Your task to perform on an android device: What's the weather going to be this weekend? Image 0: 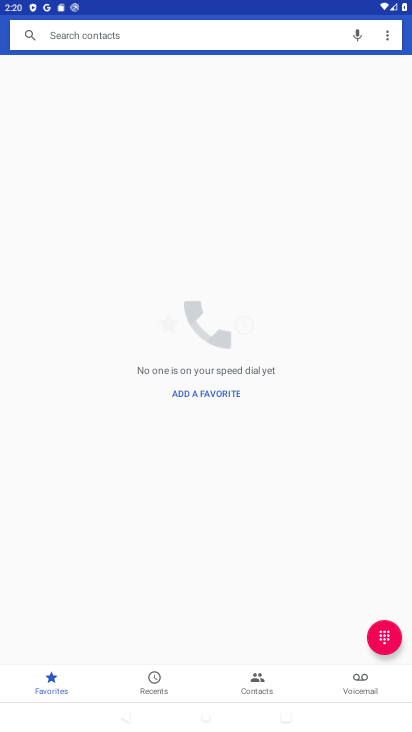
Step 0: press home button
Your task to perform on an android device: What's the weather going to be this weekend? Image 1: 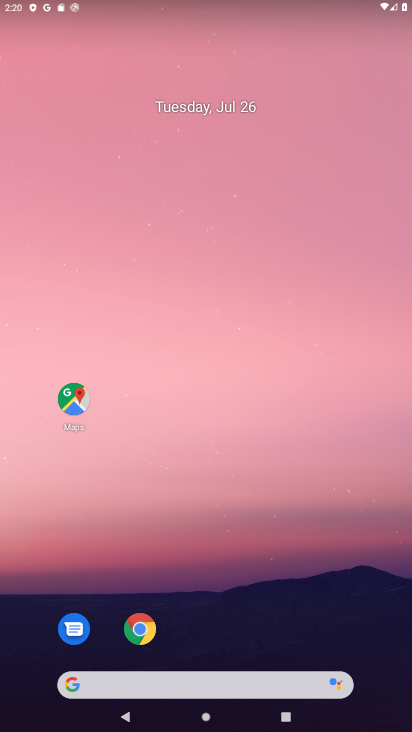
Step 1: click (138, 629)
Your task to perform on an android device: What's the weather going to be this weekend? Image 2: 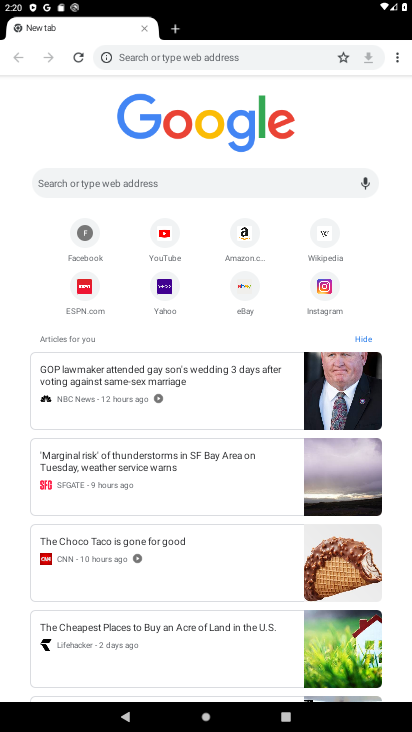
Step 2: click (233, 61)
Your task to perform on an android device: What's the weather going to be this weekend? Image 3: 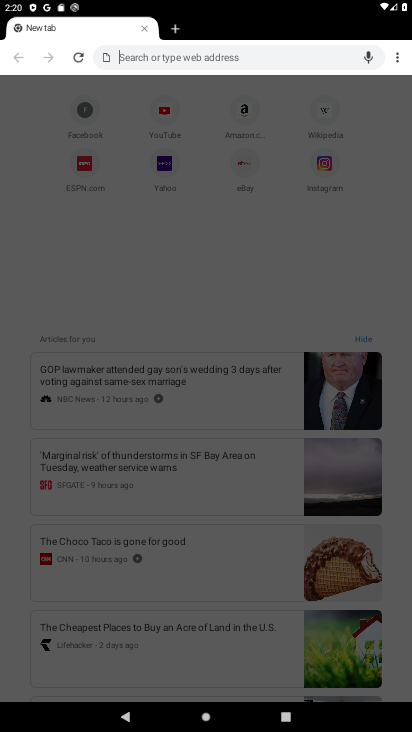
Step 3: type "What's the weather going to be this weekend?"
Your task to perform on an android device: What's the weather going to be this weekend? Image 4: 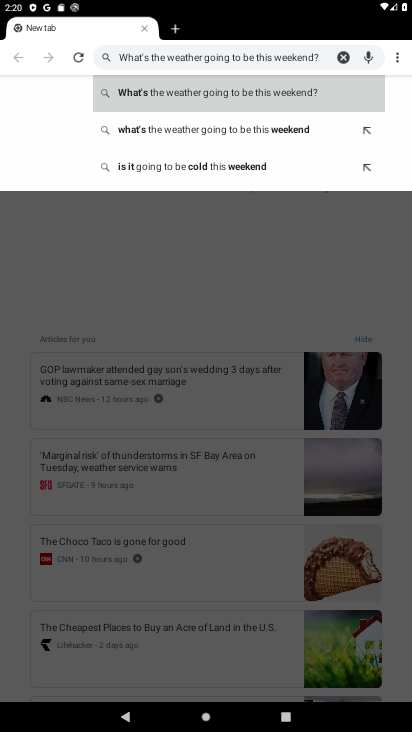
Step 4: click (308, 87)
Your task to perform on an android device: What's the weather going to be this weekend? Image 5: 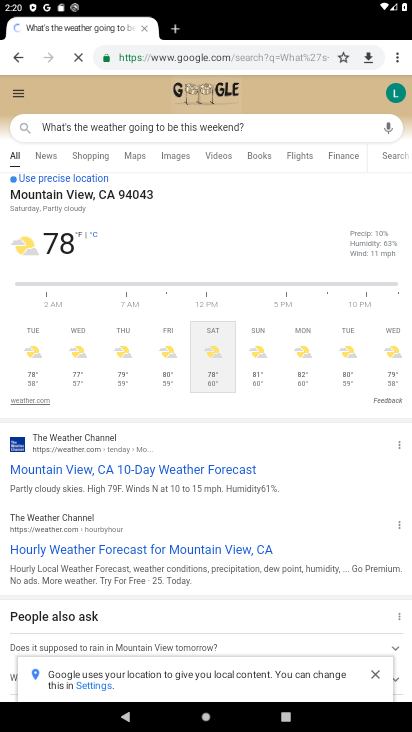
Step 5: task complete